Your task to perform on an android device: find snoozed emails in the gmail app Image 0: 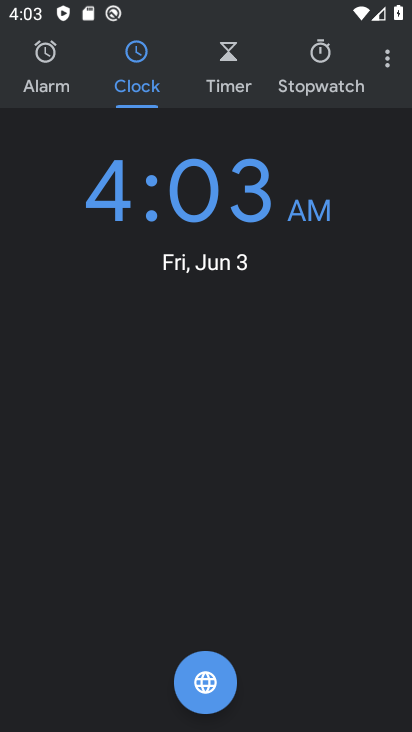
Step 0: click (387, 56)
Your task to perform on an android device: find snoozed emails in the gmail app Image 1: 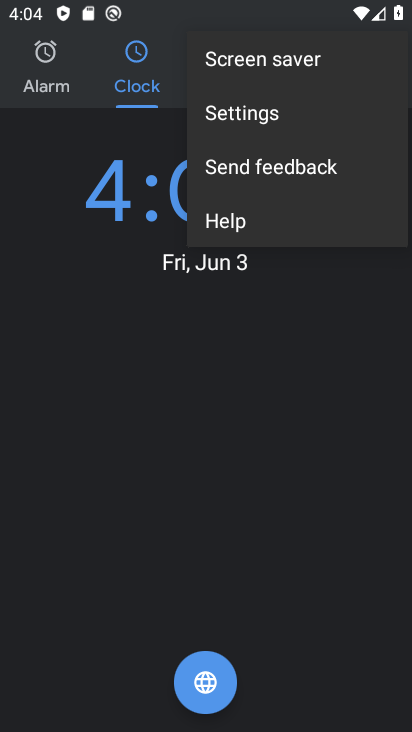
Step 1: click (257, 119)
Your task to perform on an android device: find snoozed emails in the gmail app Image 2: 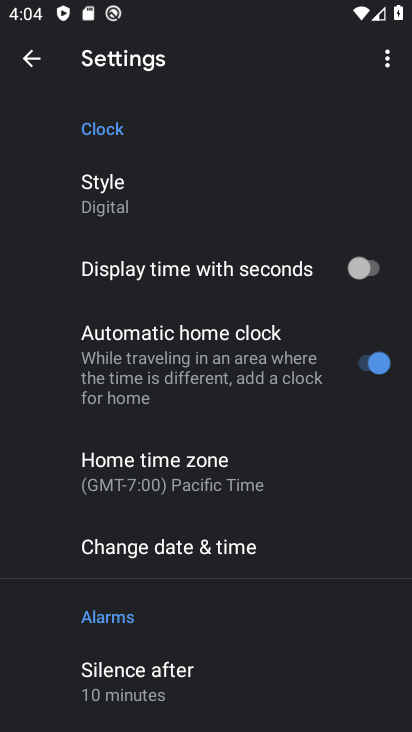
Step 2: drag from (273, 576) to (240, 191)
Your task to perform on an android device: find snoozed emails in the gmail app Image 3: 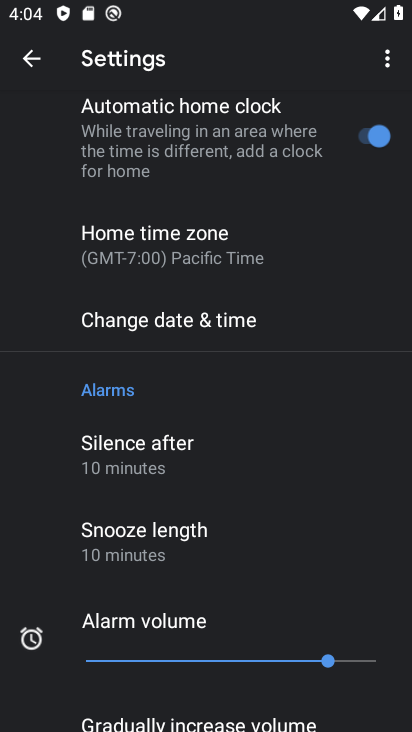
Step 3: click (125, 530)
Your task to perform on an android device: find snoozed emails in the gmail app Image 4: 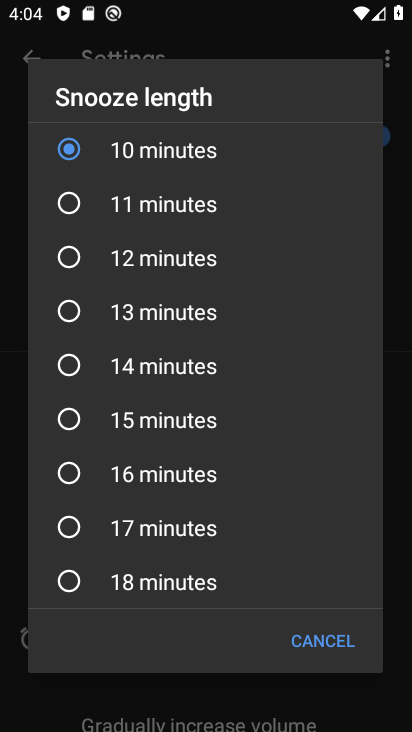
Step 4: press home button
Your task to perform on an android device: find snoozed emails in the gmail app Image 5: 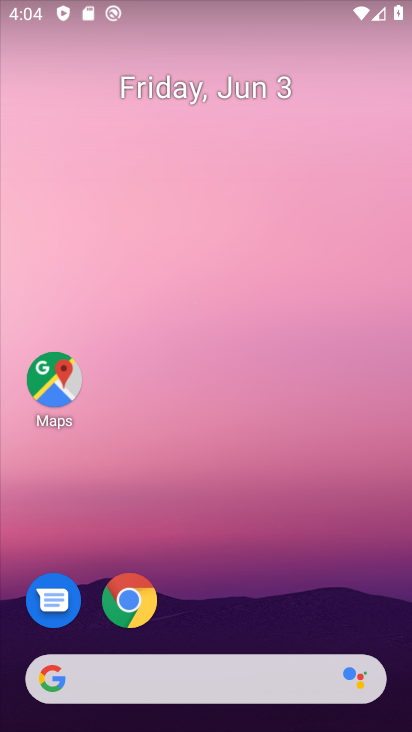
Step 5: drag from (399, 607) to (341, 146)
Your task to perform on an android device: find snoozed emails in the gmail app Image 6: 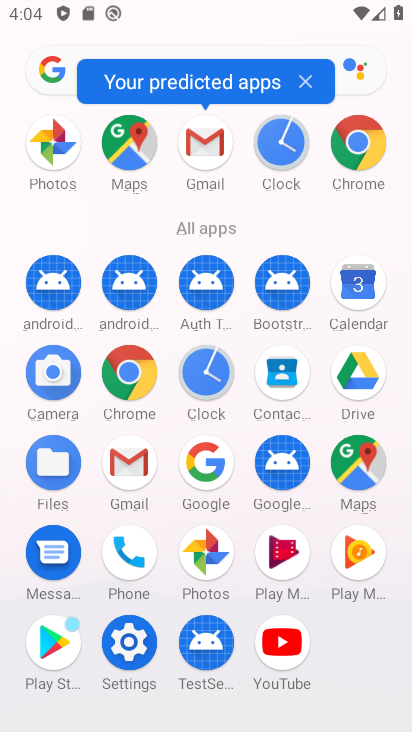
Step 6: click (134, 451)
Your task to perform on an android device: find snoozed emails in the gmail app Image 7: 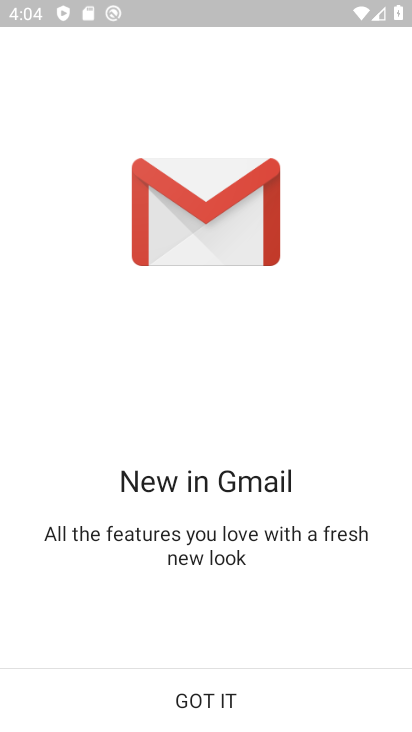
Step 7: click (193, 694)
Your task to perform on an android device: find snoozed emails in the gmail app Image 8: 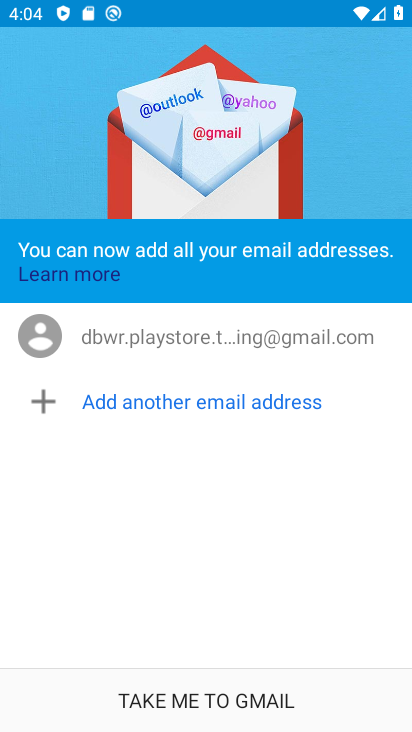
Step 8: click (166, 694)
Your task to perform on an android device: find snoozed emails in the gmail app Image 9: 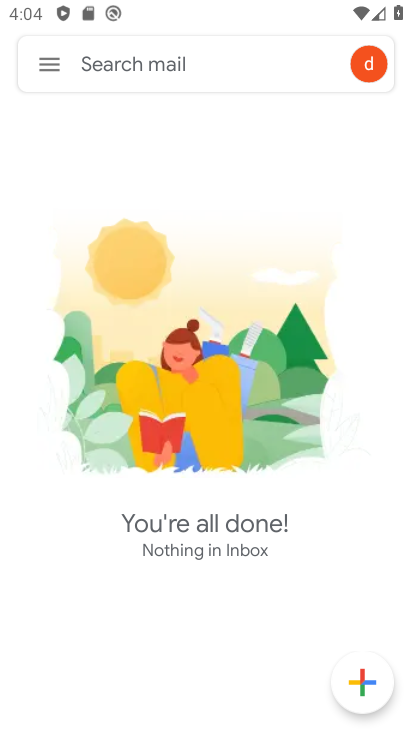
Step 9: click (52, 55)
Your task to perform on an android device: find snoozed emails in the gmail app Image 10: 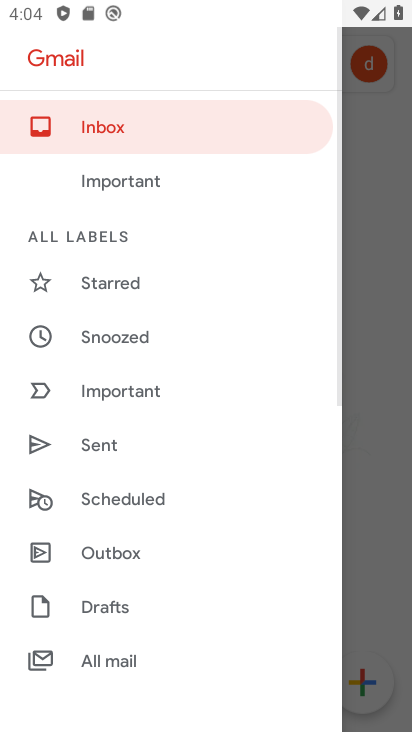
Step 10: click (101, 338)
Your task to perform on an android device: find snoozed emails in the gmail app Image 11: 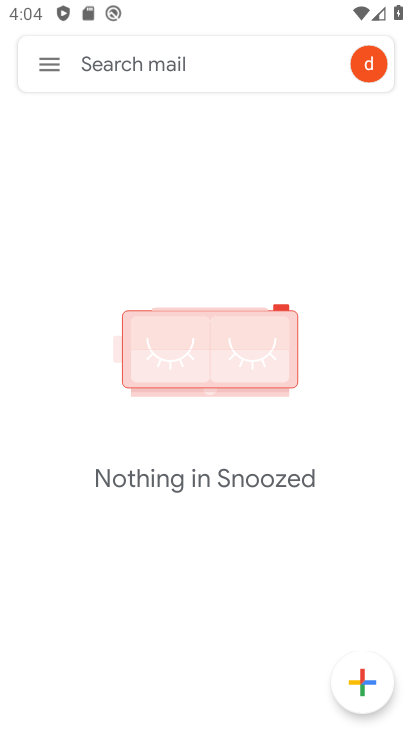
Step 11: task complete